Your task to perform on an android device: make emails show in primary in the gmail app Image 0: 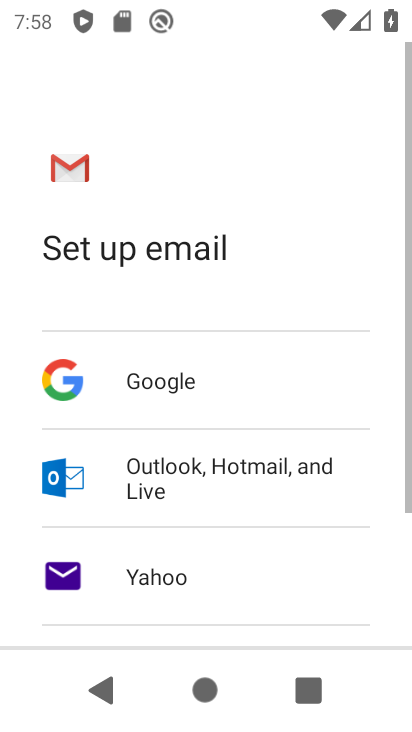
Step 0: press back button
Your task to perform on an android device: make emails show in primary in the gmail app Image 1: 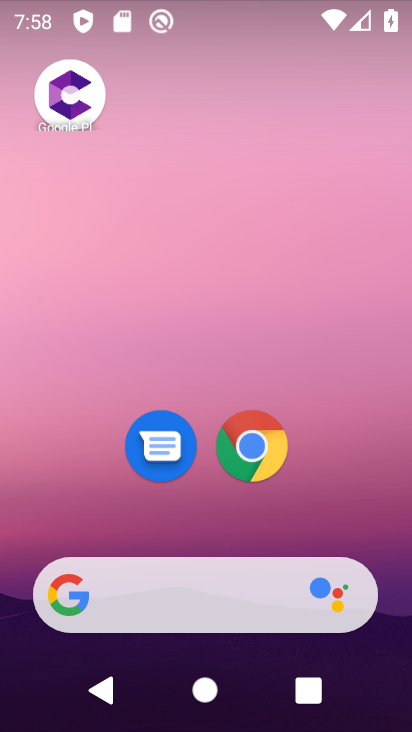
Step 1: click (293, 132)
Your task to perform on an android device: make emails show in primary in the gmail app Image 2: 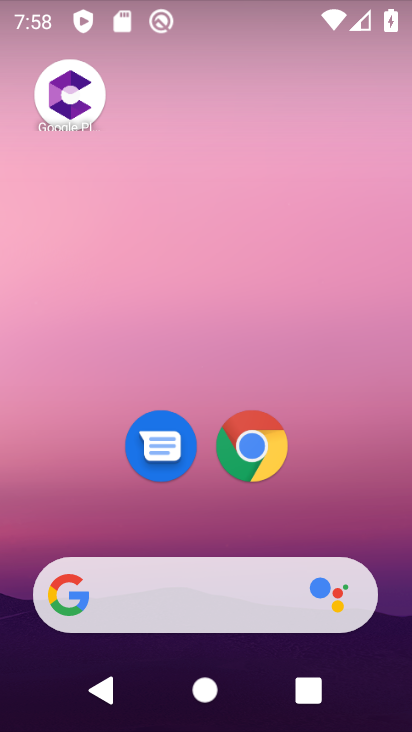
Step 2: drag from (298, 518) to (298, 178)
Your task to perform on an android device: make emails show in primary in the gmail app Image 3: 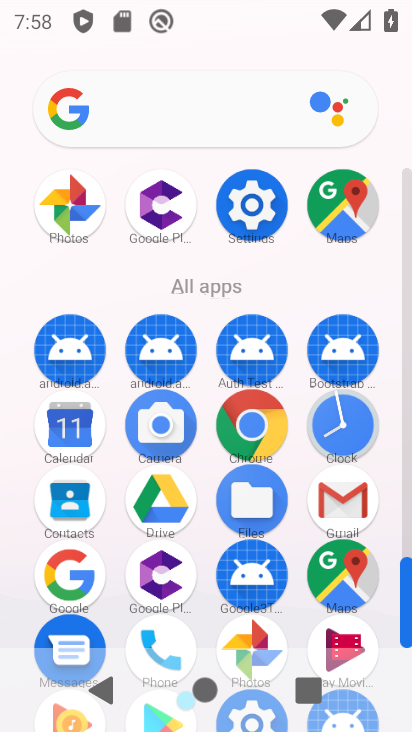
Step 3: click (347, 505)
Your task to perform on an android device: make emails show in primary in the gmail app Image 4: 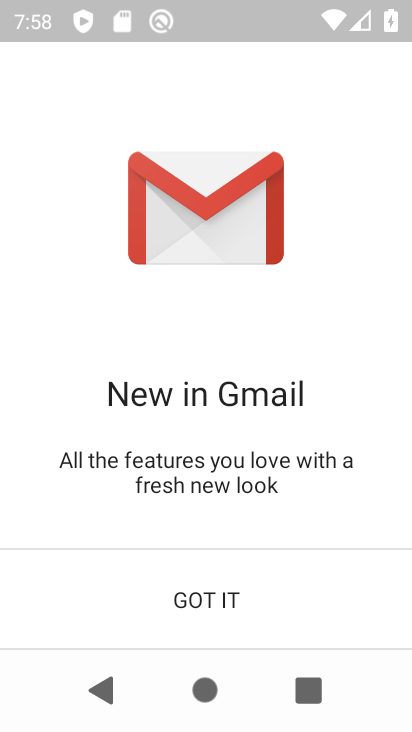
Step 4: click (216, 597)
Your task to perform on an android device: make emails show in primary in the gmail app Image 5: 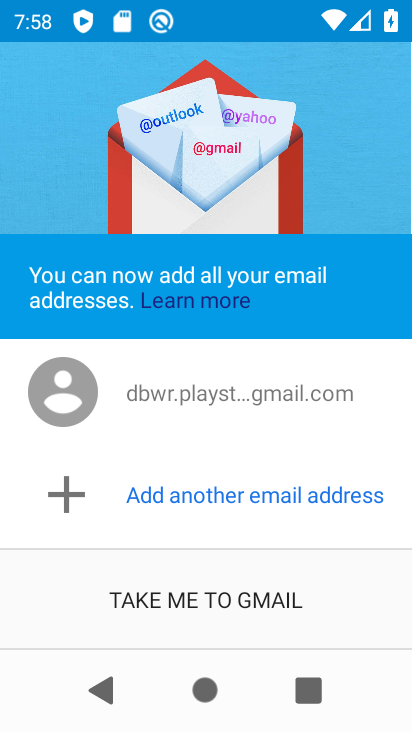
Step 5: click (216, 597)
Your task to perform on an android device: make emails show in primary in the gmail app Image 6: 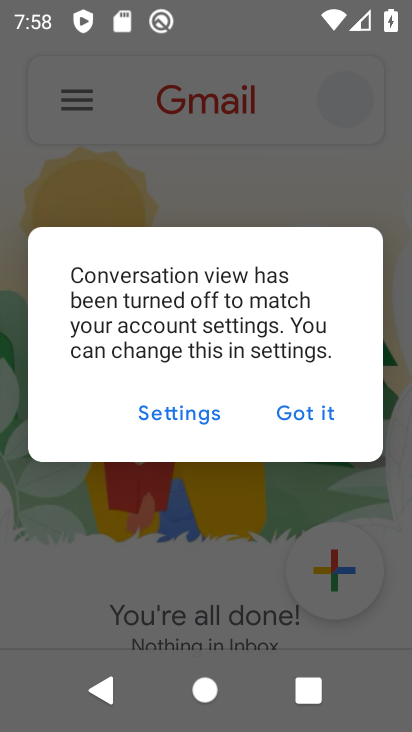
Step 6: click (306, 406)
Your task to perform on an android device: make emails show in primary in the gmail app Image 7: 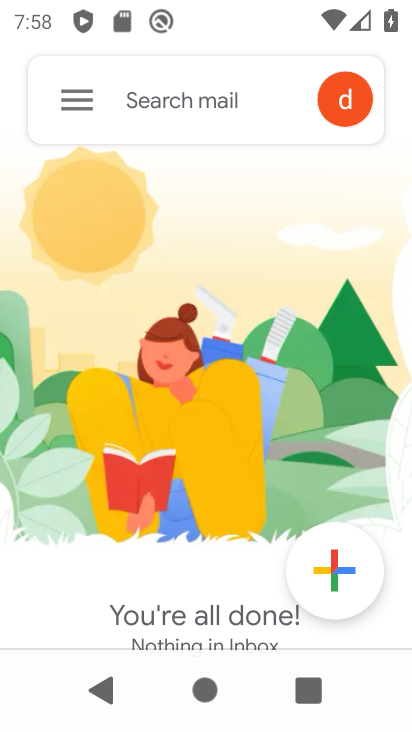
Step 7: click (95, 101)
Your task to perform on an android device: make emails show in primary in the gmail app Image 8: 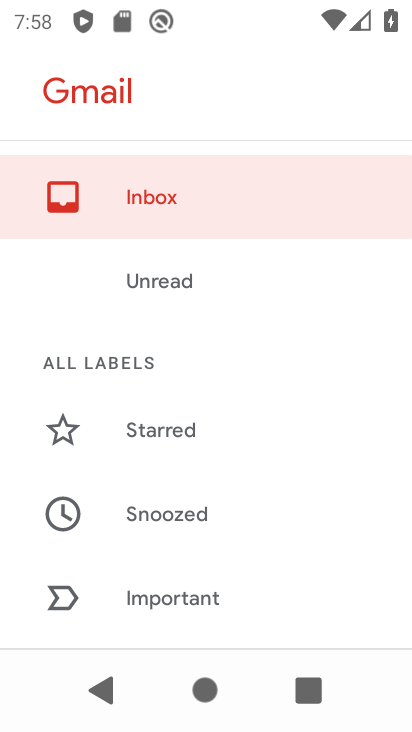
Step 8: drag from (148, 595) to (197, 217)
Your task to perform on an android device: make emails show in primary in the gmail app Image 9: 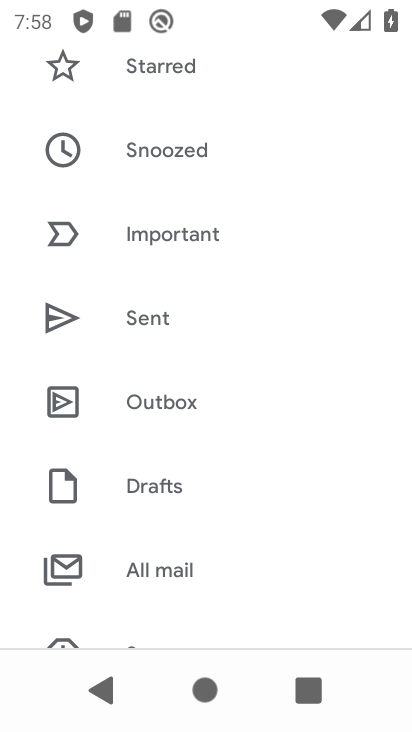
Step 9: drag from (173, 586) to (169, 237)
Your task to perform on an android device: make emails show in primary in the gmail app Image 10: 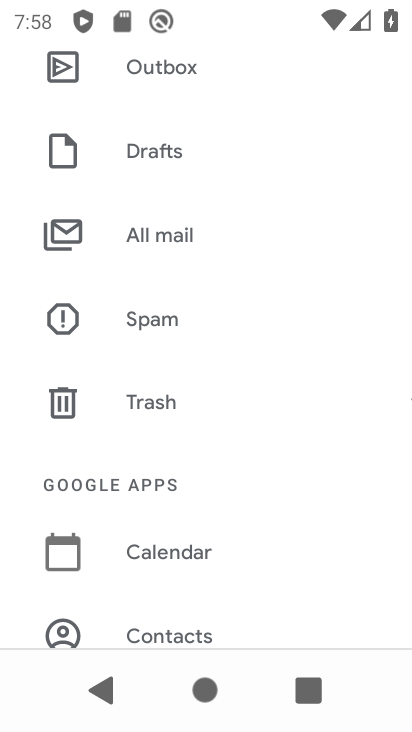
Step 10: drag from (219, 593) to (217, 310)
Your task to perform on an android device: make emails show in primary in the gmail app Image 11: 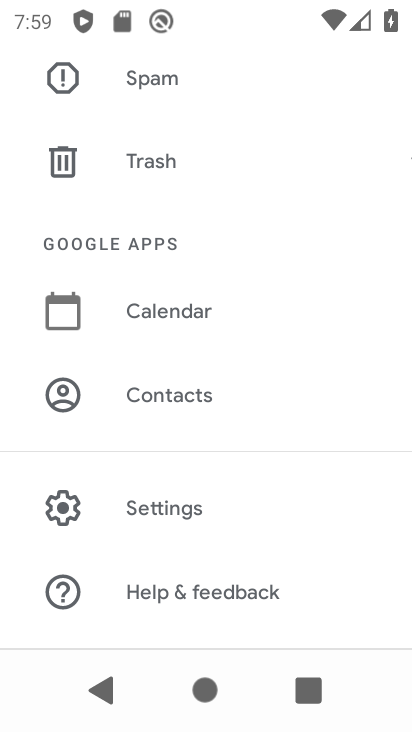
Step 11: click (153, 517)
Your task to perform on an android device: make emails show in primary in the gmail app Image 12: 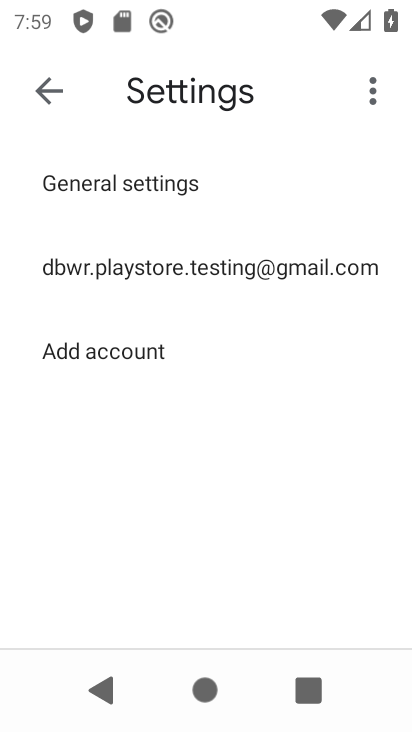
Step 12: click (174, 276)
Your task to perform on an android device: make emails show in primary in the gmail app Image 13: 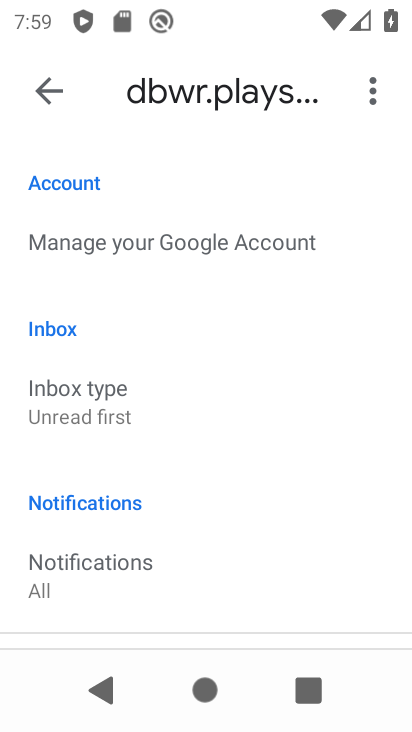
Step 13: task complete